Your task to perform on an android device: open the mobile data screen to see how much data has been used Image 0: 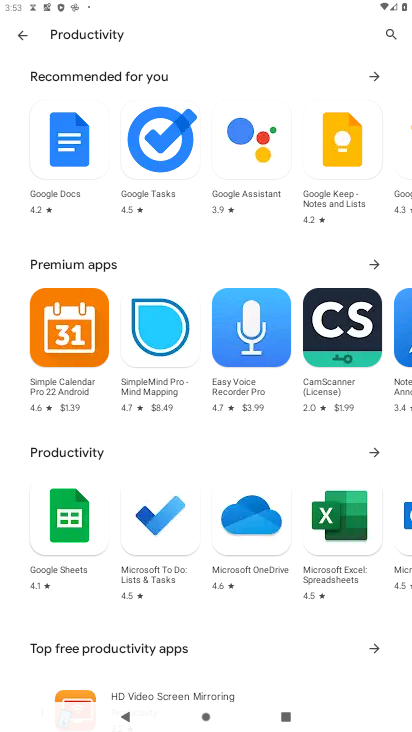
Step 0: press home button
Your task to perform on an android device: open the mobile data screen to see how much data has been used Image 1: 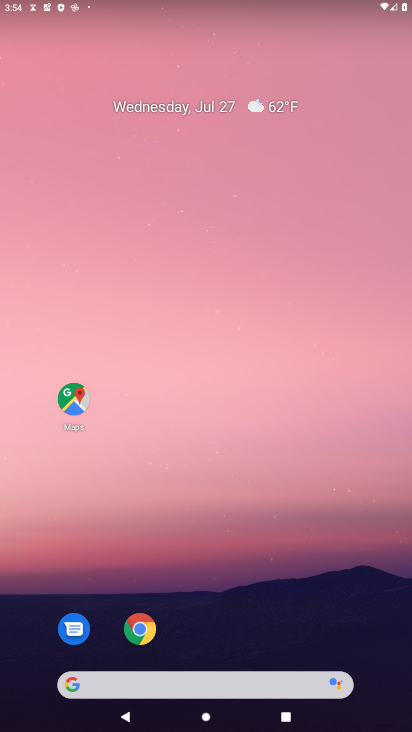
Step 1: drag from (203, 687) to (219, 39)
Your task to perform on an android device: open the mobile data screen to see how much data has been used Image 2: 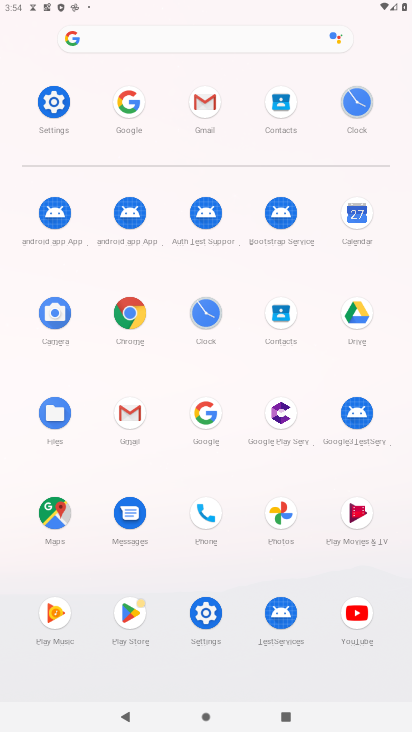
Step 2: click (54, 100)
Your task to perform on an android device: open the mobile data screen to see how much data has been used Image 3: 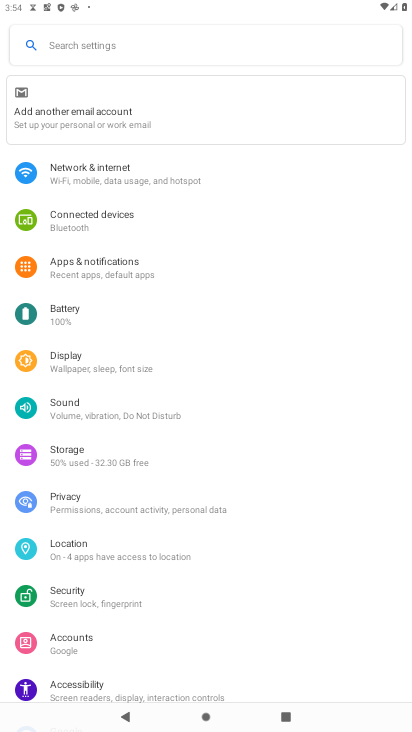
Step 3: click (81, 167)
Your task to perform on an android device: open the mobile data screen to see how much data has been used Image 4: 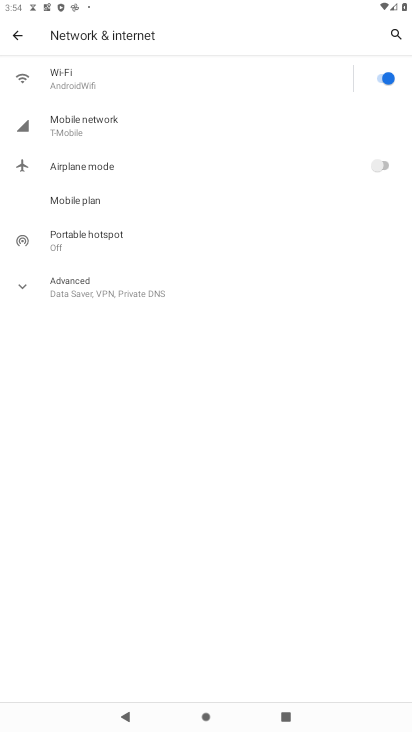
Step 4: click (88, 119)
Your task to perform on an android device: open the mobile data screen to see how much data has been used Image 5: 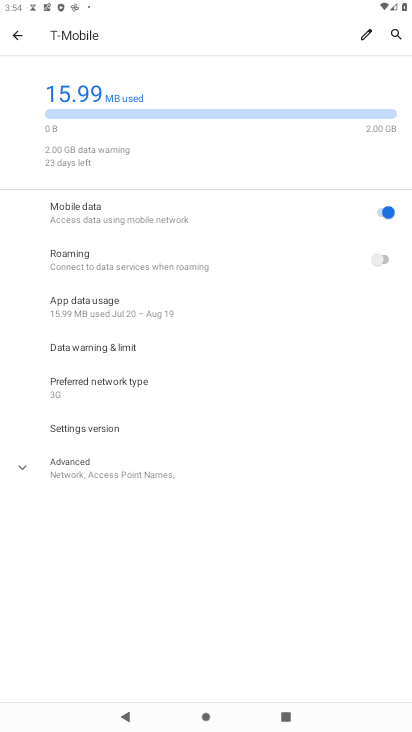
Step 5: task complete